Your task to perform on an android device: toggle notifications settings in the gmail app Image 0: 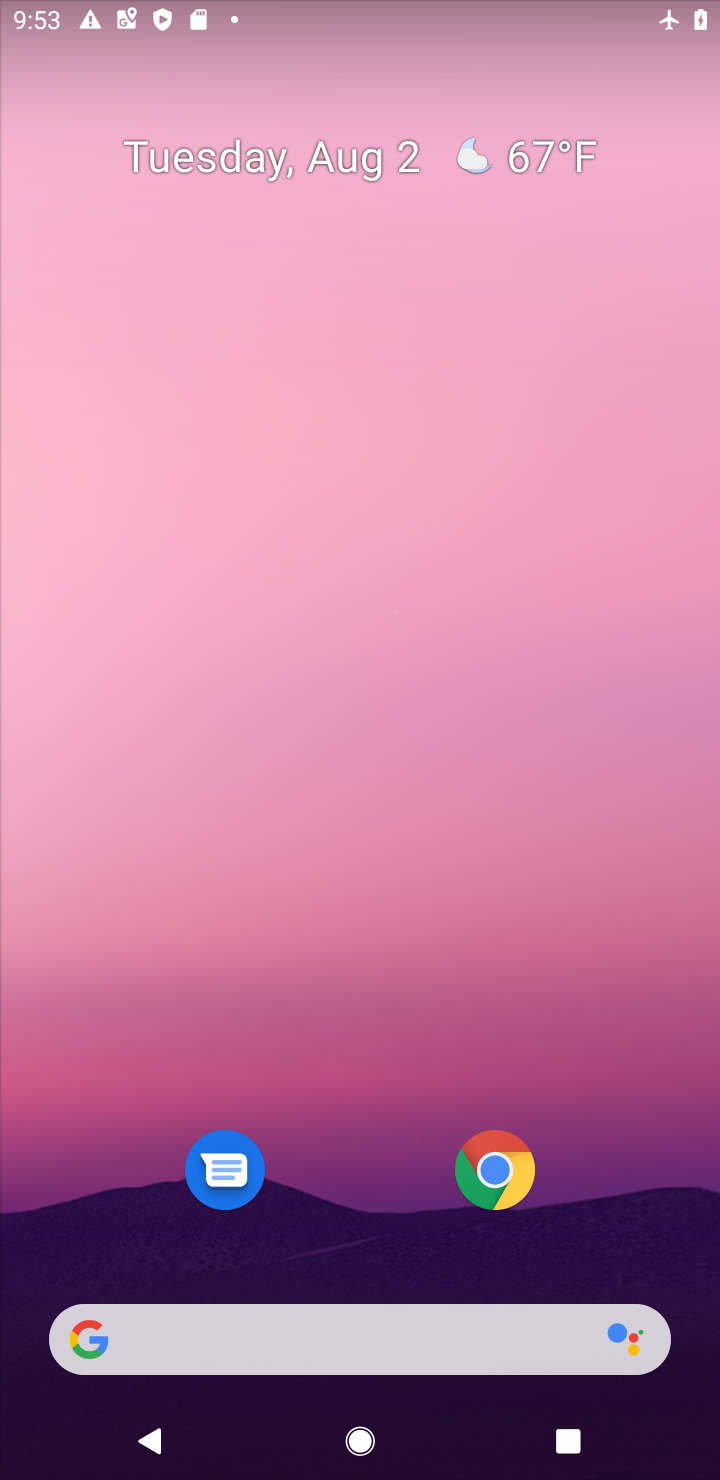
Step 0: drag from (286, 362) to (300, 127)
Your task to perform on an android device: toggle notifications settings in the gmail app Image 1: 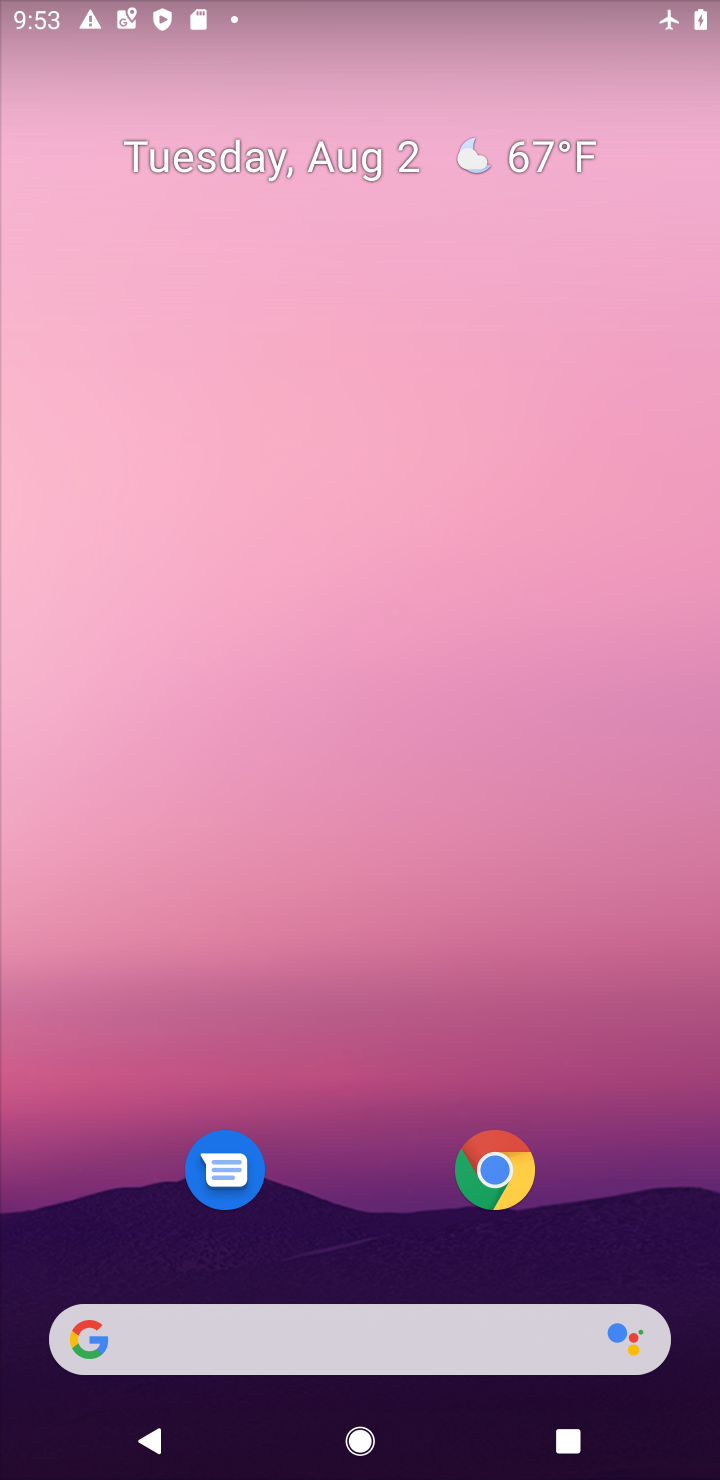
Step 1: drag from (367, 1148) to (208, 154)
Your task to perform on an android device: toggle notifications settings in the gmail app Image 2: 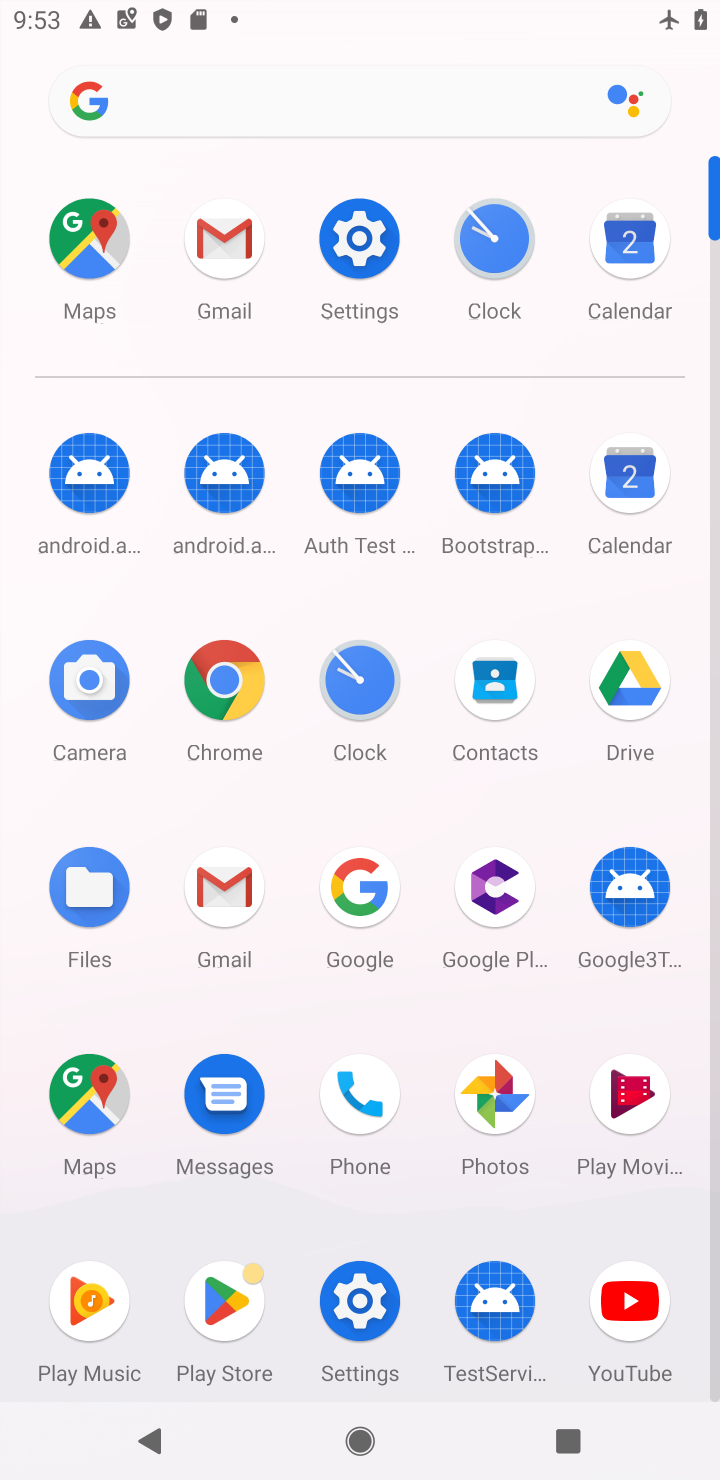
Step 2: click (363, 228)
Your task to perform on an android device: toggle notifications settings in the gmail app Image 3: 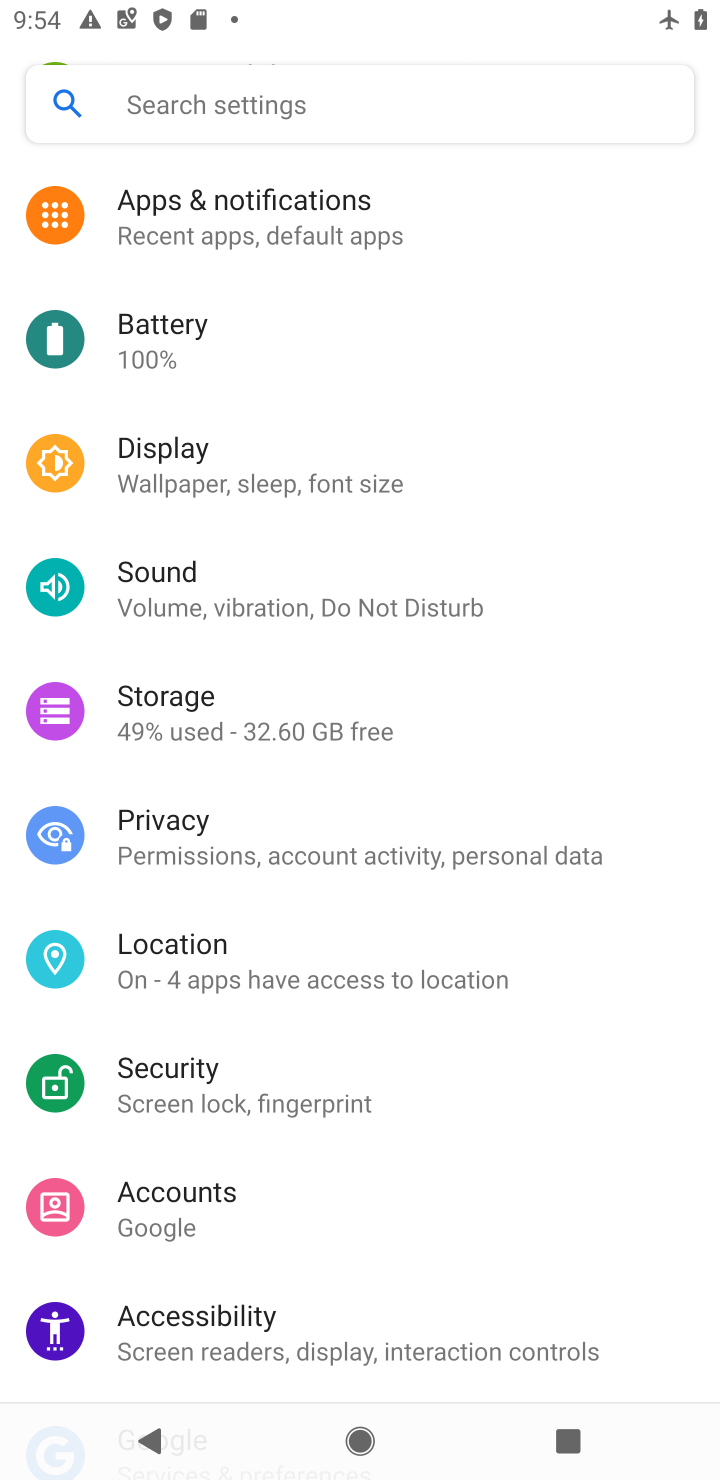
Step 3: press back button
Your task to perform on an android device: toggle notifications settings in the gmail app Image 4: 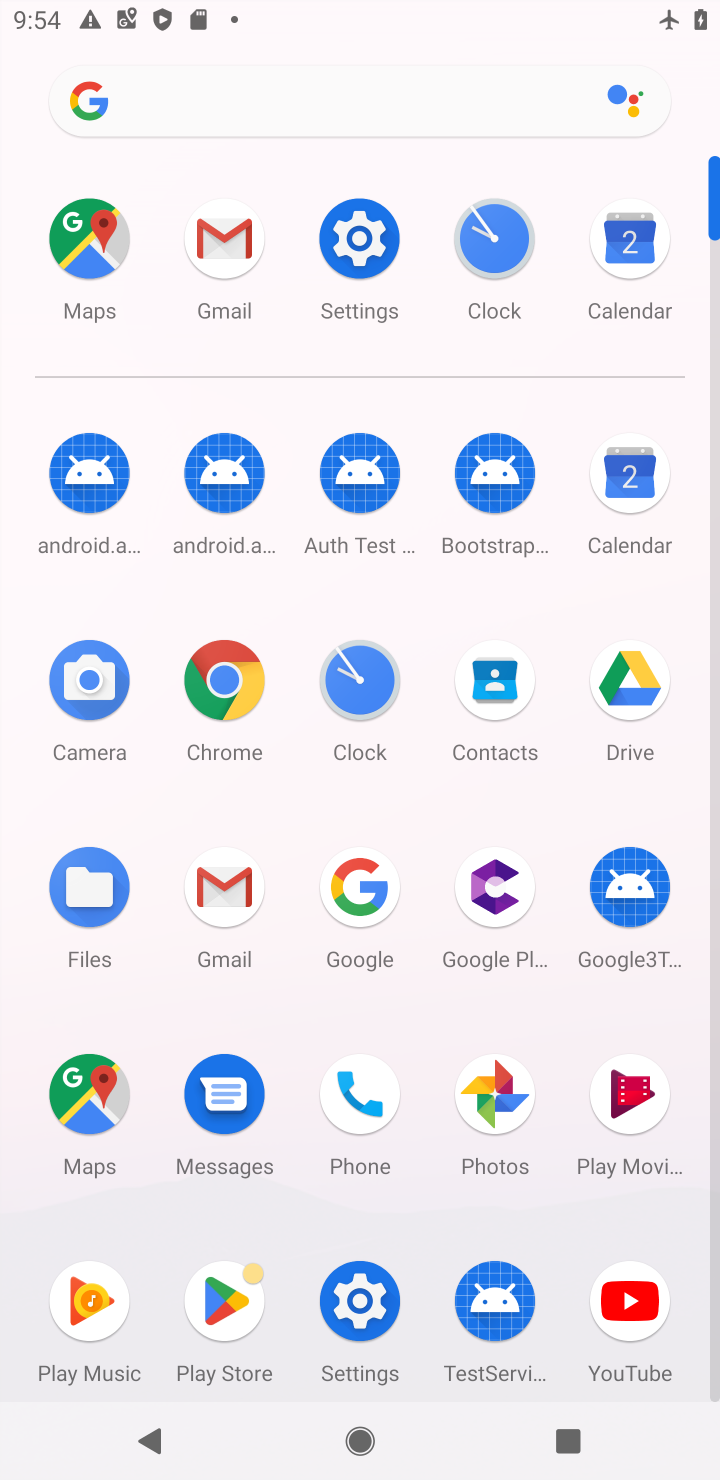
Step 4: click (220, 889)
Your task to perform on an android device: toggle notifications settings in the gmail app Image 5: 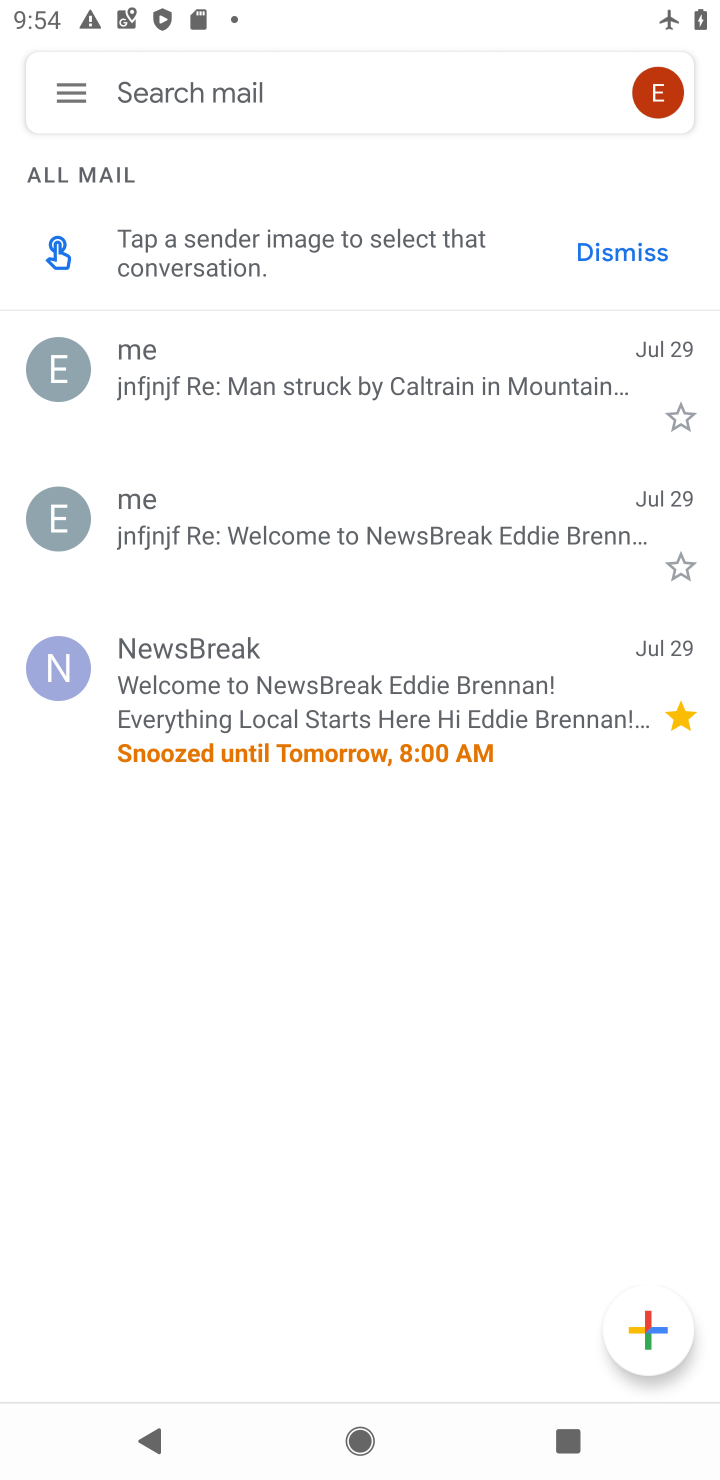
Step 5: click (71, 83)
Your task to perform on an android device: toggle notifications settings in the gmail app Image 6: 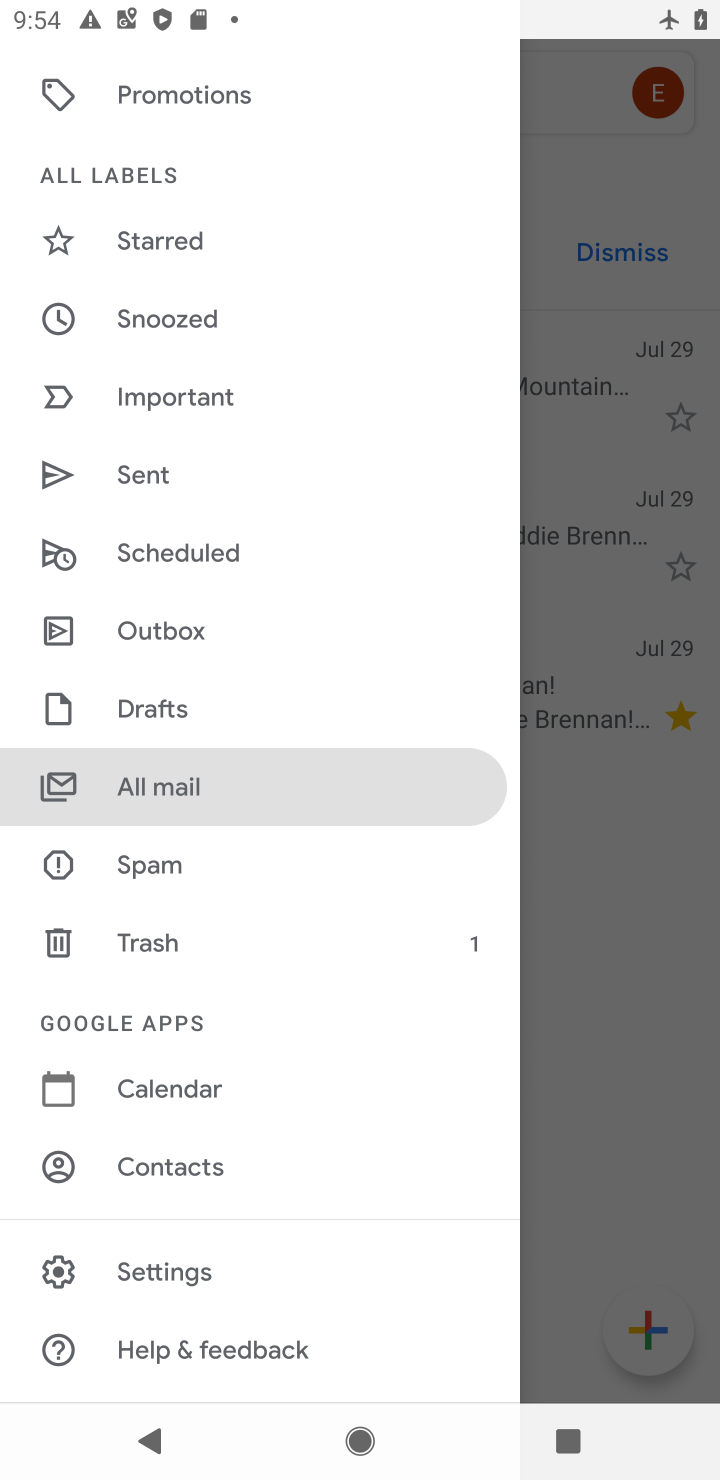
Step 6: click (173, 1281)
Your task to perform on an android device: toggle notifications settings in the gmail app Image 7: 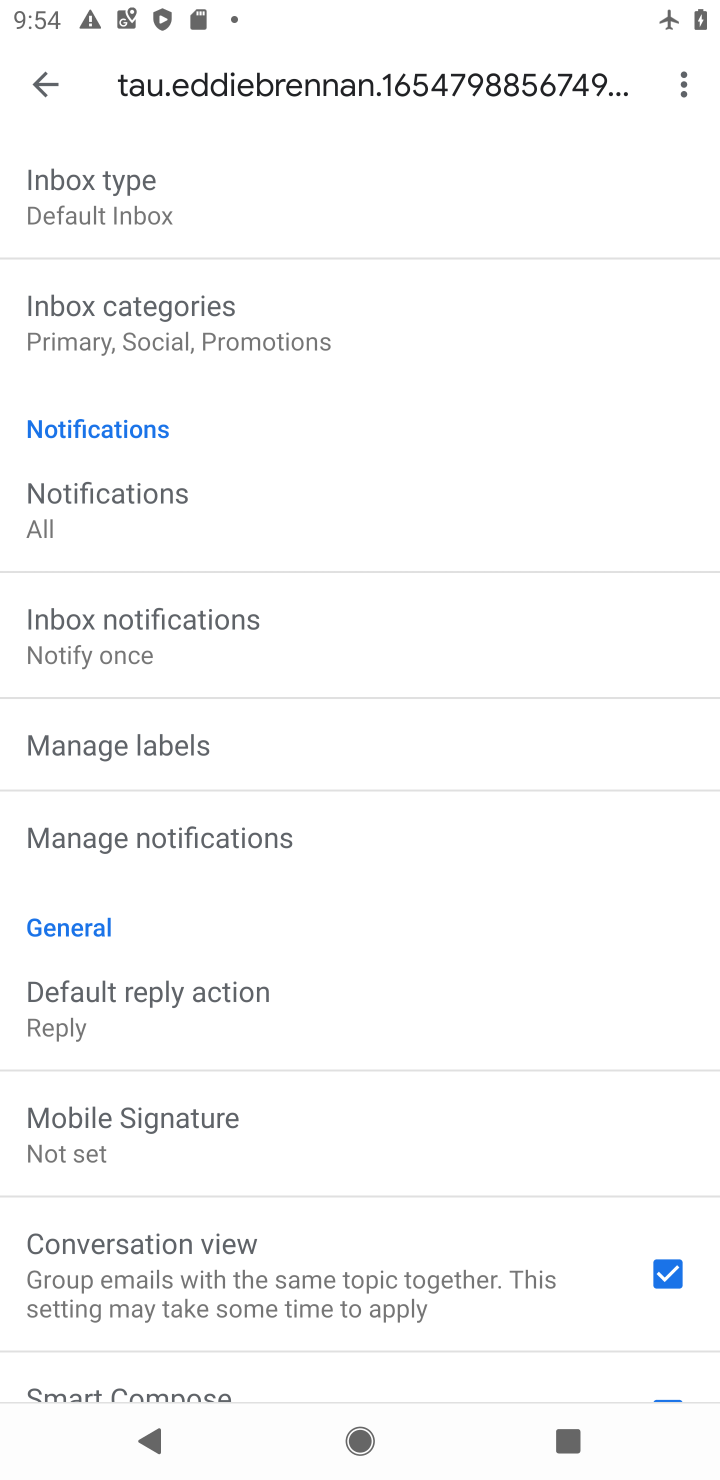
Step 7: click (109, 839)
Your task to perform on an android device: toggle notifications settings in the gmail app Image 8: 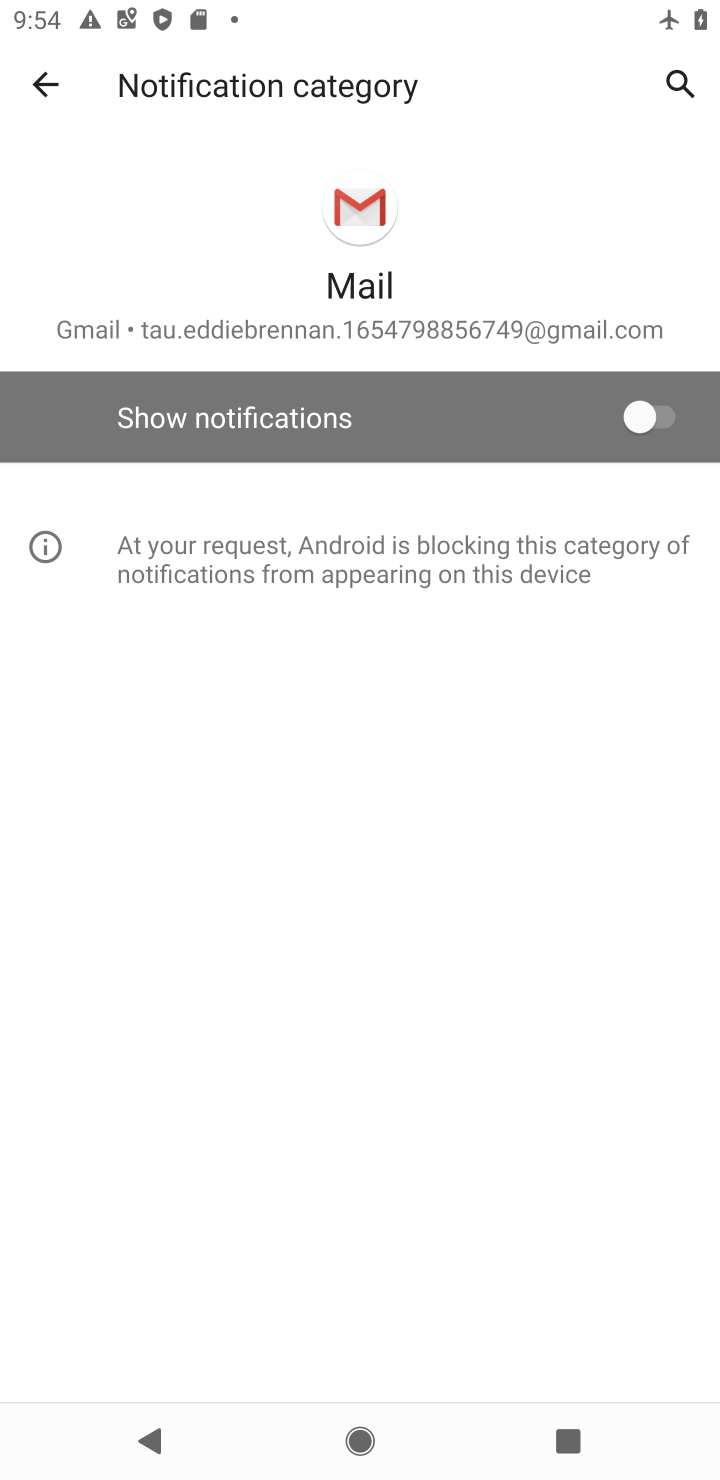
Step 8: click (651, 408)
Your task to perform on an android device: toggle notifications settings in the gmail app Image 9: 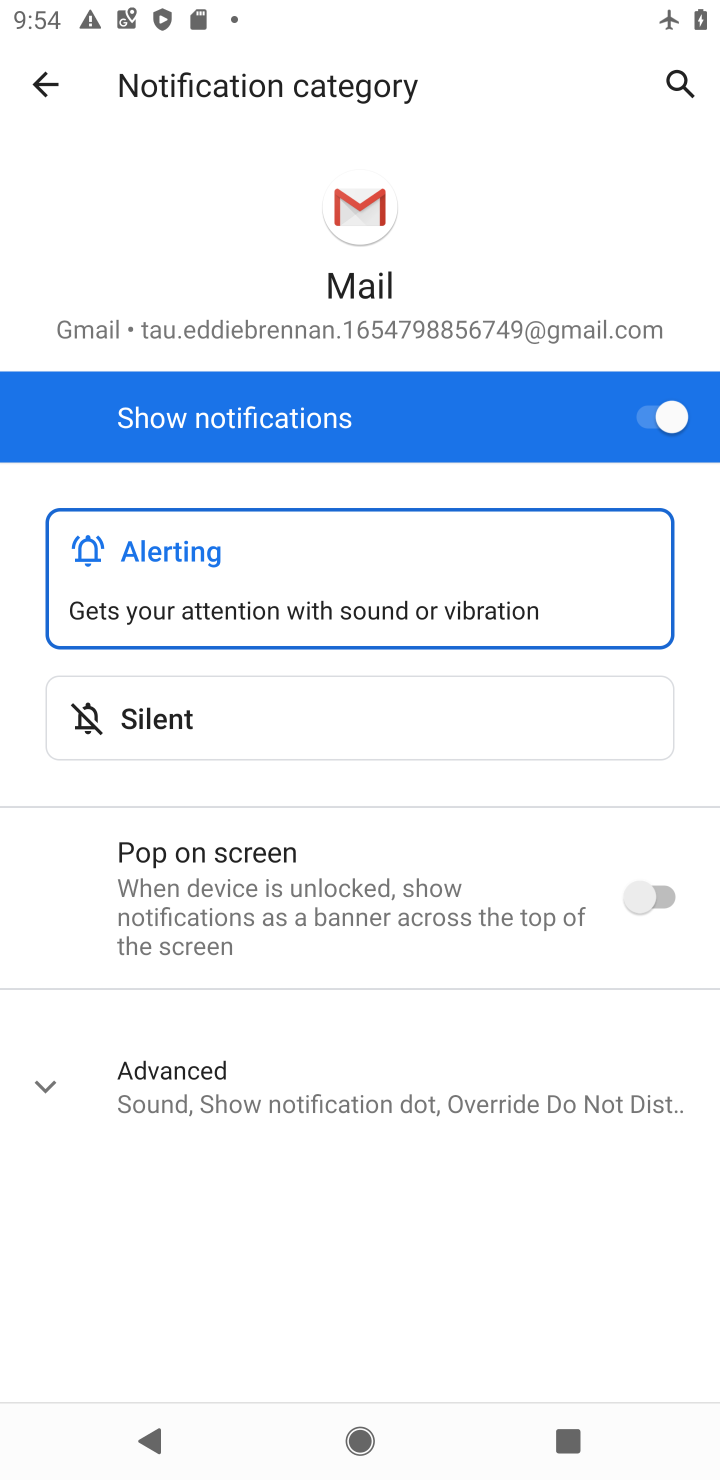
Step 9: task complete